Your task to perform on an android device: delete location history Image 0: 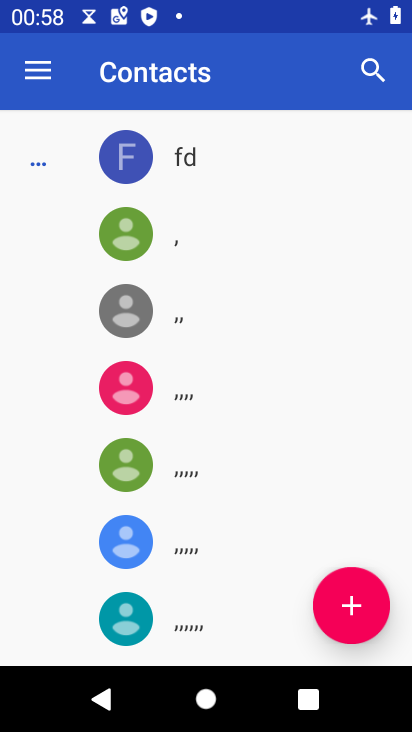
Step 0: press home button
Your task to perform on an android device: delete location history Image 1: 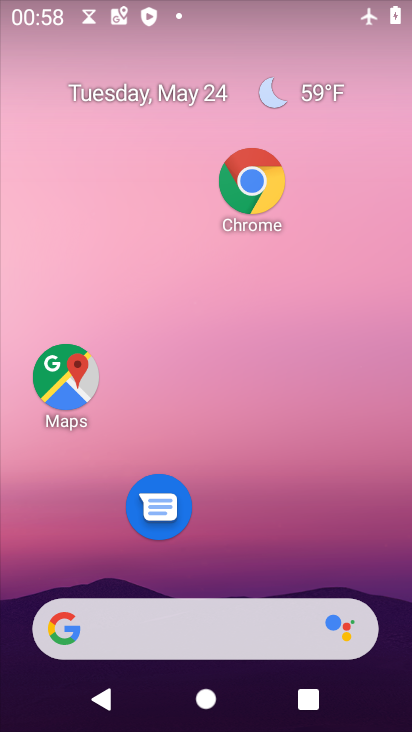
Step 1: click (51, 376)
Your task to perform on an android device: delete location history Image 2: 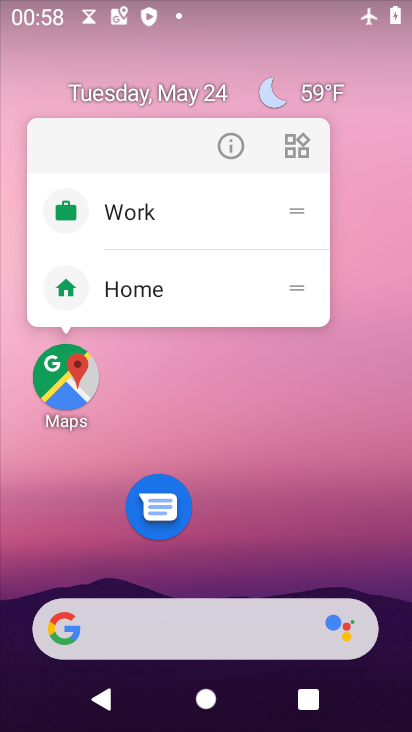
Step 2: click (57, 373)
Your task to perform on an android device: delete location history Image 3: 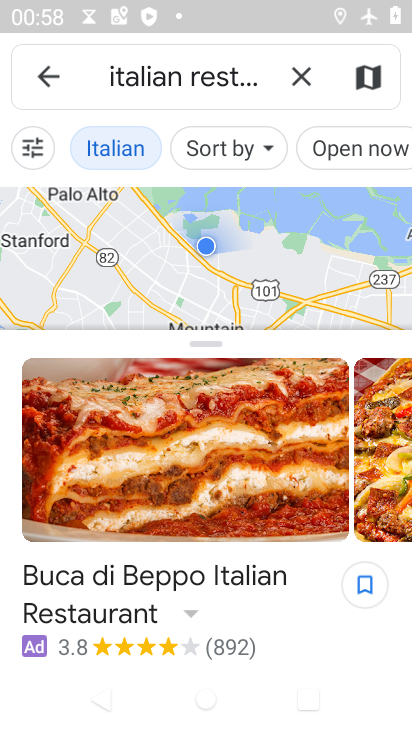
Step 3: click (301, 75)
Your task to perform on an android device: delete location history Image 4: 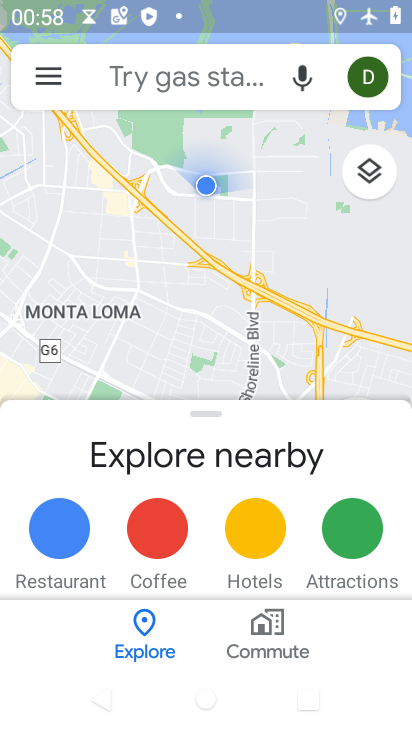
Step 4: click (45, 73)
Your task to perform on an android device: delete location history Image 5: 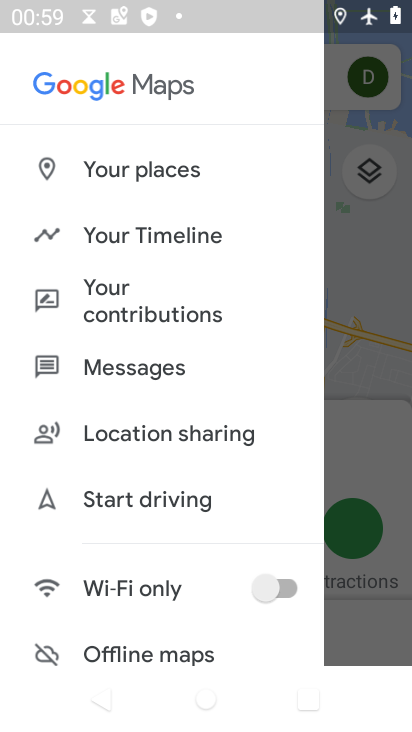
Step 5: click (153, 237)
Your task to perform on an android device: delete location history Image 6: 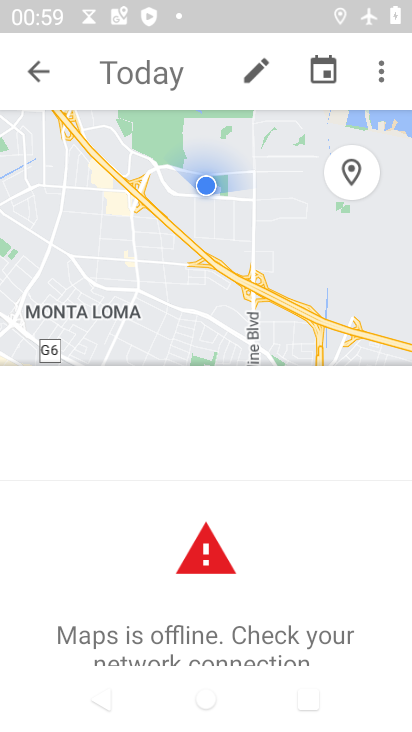
Step 6: click (375, 83)
Your task to perform on an android device: delete location history Image 7: 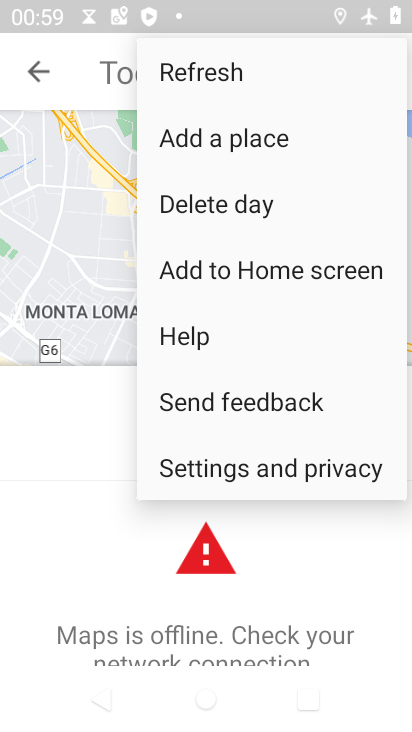
Step 7: click (270, 469)
Your task to perform on an android device: delete location history Image 8: 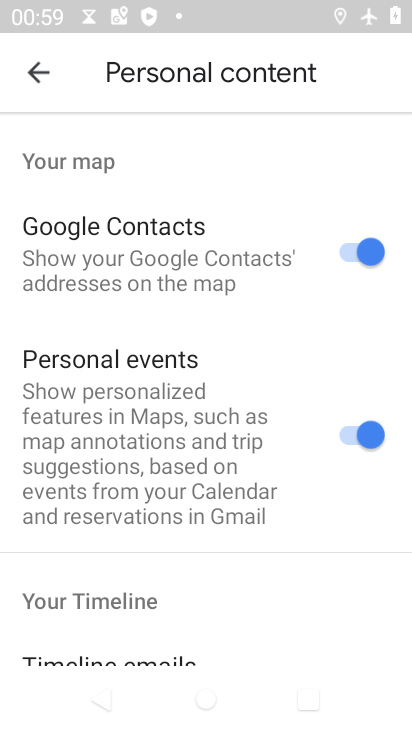
Step 8: drag from (275, 600) to (297, 172)
Your task to perform on an android device: delete location history Image 9: 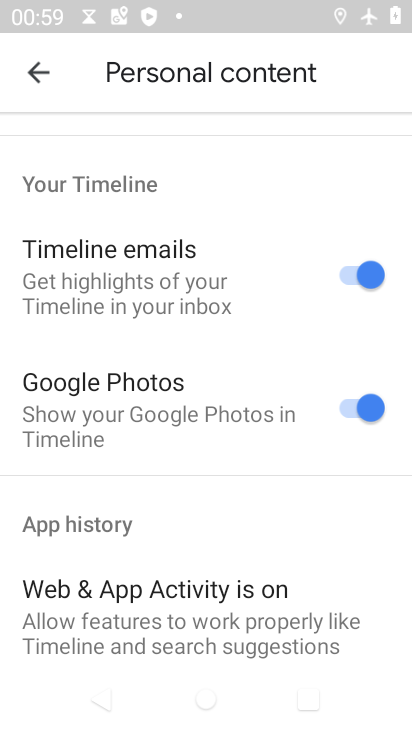
Step 9: drag from (172, 588) to (224, 317)
Your task to perform on an android device: delete location history Image 10: 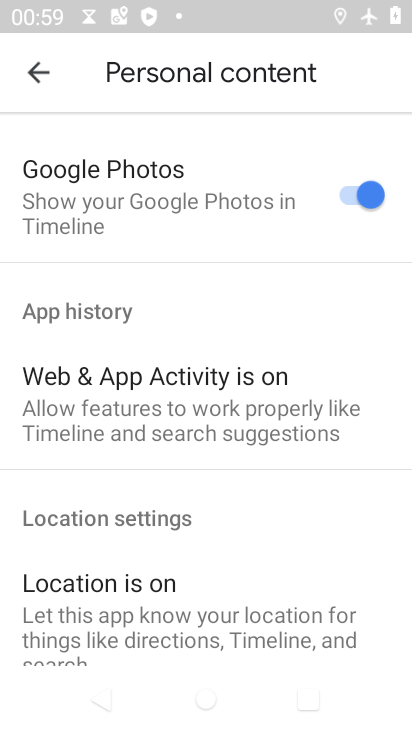
Step 10: drag from (190, 625) to (221, 210)
Your task to perform on an android device: delete location history Image 11: 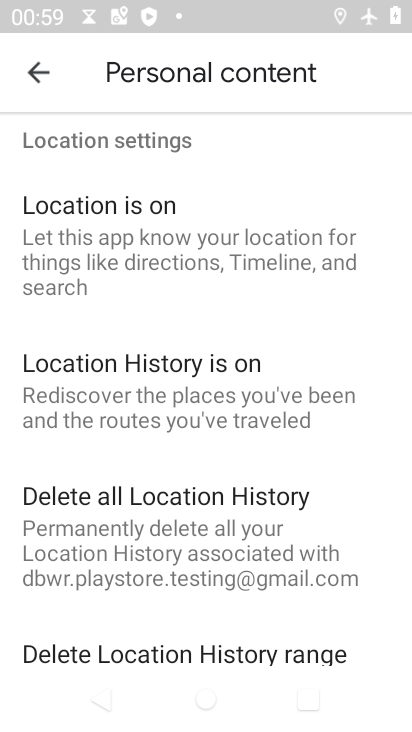
Step 11: click (245, 547)
Your task to perform on an android device: delete location history Image 12: 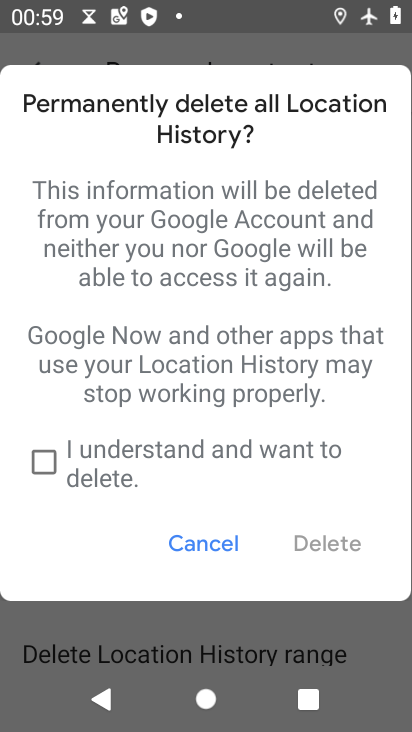
Step 12: click (44, 450)
Your task to perform on an android device: delete location history Image 13: 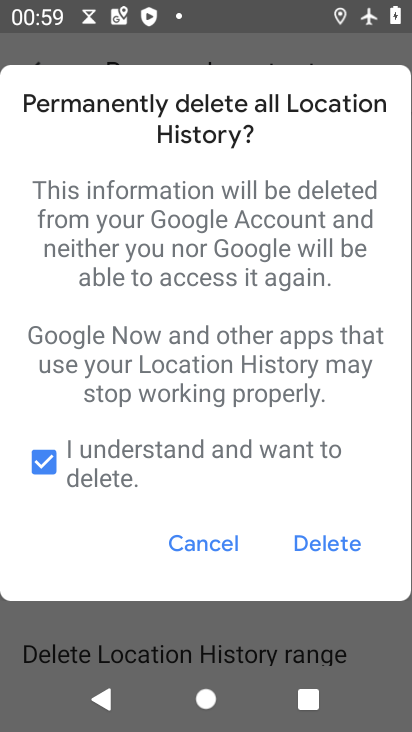
Step 13: click (305, 534)
Your task to perform on an android device: delete location history Image 14: 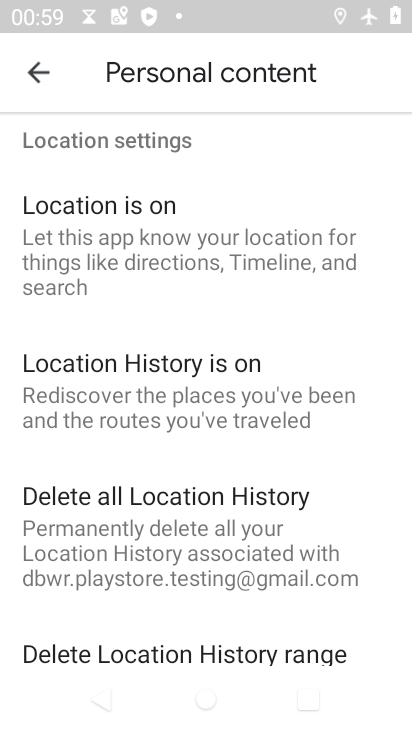
Step 14: task complete